Your task to perform on an android device: Go to Android settings Image 0: 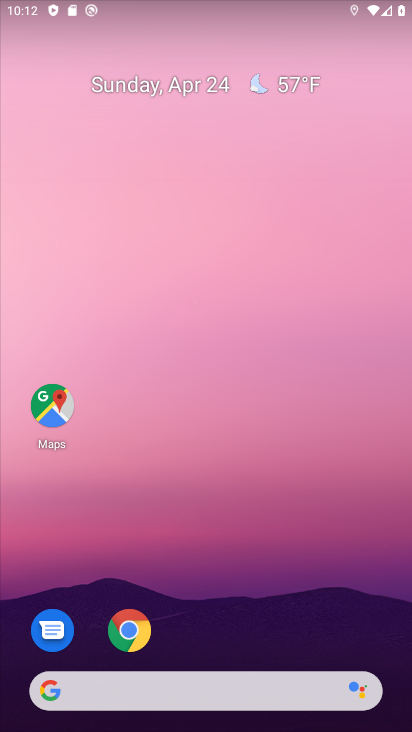
Step 0: drag from (202, 616) to (223, 2)
Your task to perform on an android device: Go to Android settings Image 1: 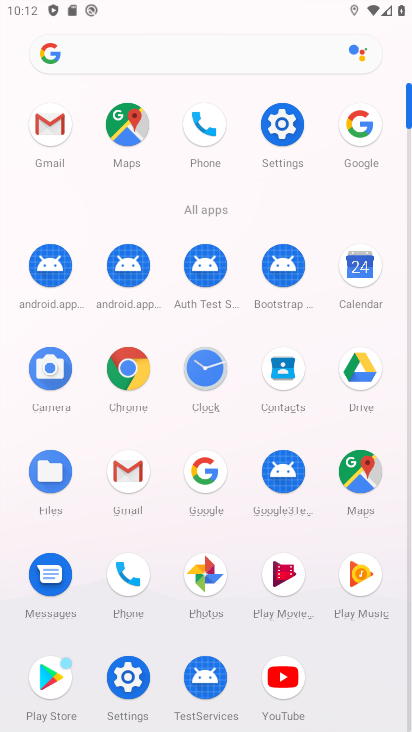
Step 1: click (279, 125)
Your task to perform on an android device: Go to Android settings Image 2: 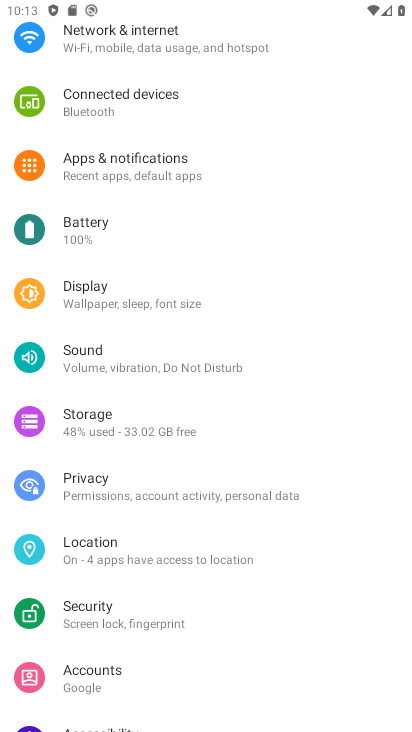
Step 2: task complete